Your task to perform on an android device: turn on improve location accuracy Image 0: 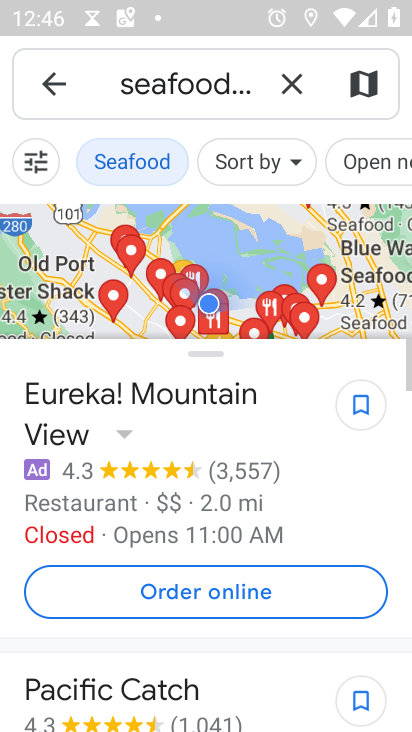
Step 0: press home button
Your task to perform on an android device: turn on improve location accuracy Image 1: 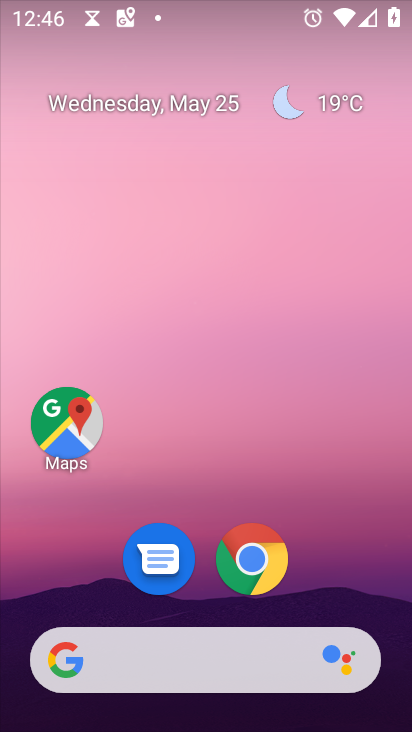
Step 1: drag from (388, 589) to (407, 120)
Your task to perform on an android device: turn on improve location accuracy Image 2: 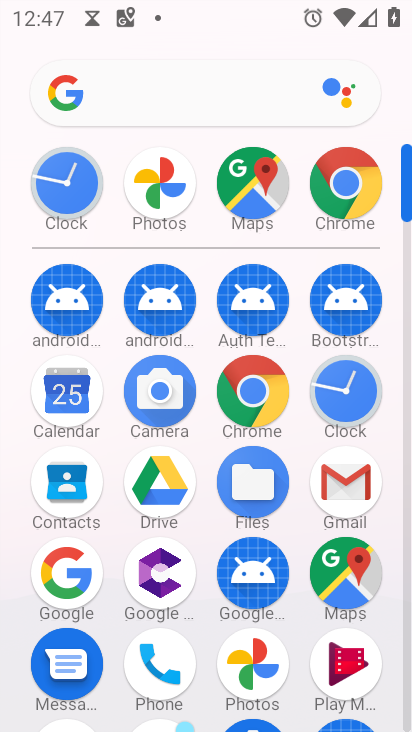
Step 2: drag from (398, 564) to (395, 291)
Your task to perform on an android device: turn on improve location accuracy Image 3: 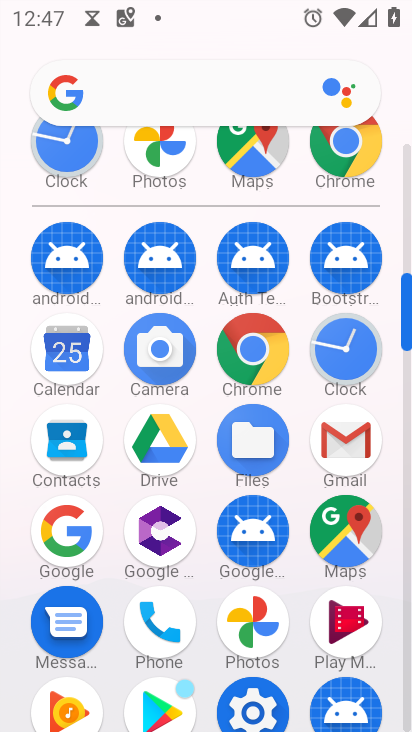
Step 3: drag from (390, 649) to (397, 151)
Your task to perform on an android device: turn on improve location accuracy Image 4: 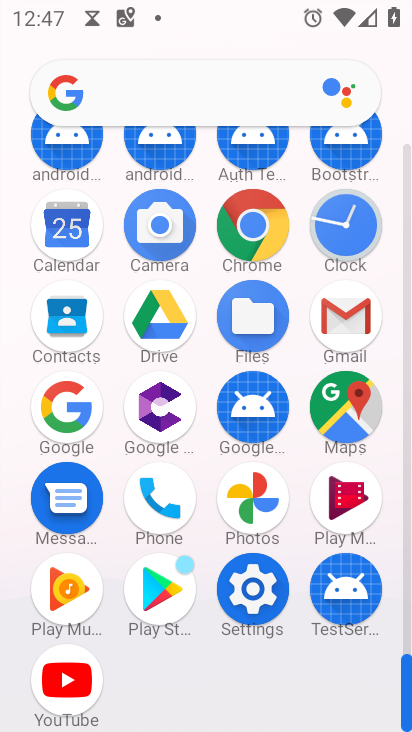
Step 4: click (260, 593)
Your task to perform on an android device: turn on improve location accuracy Image 5: 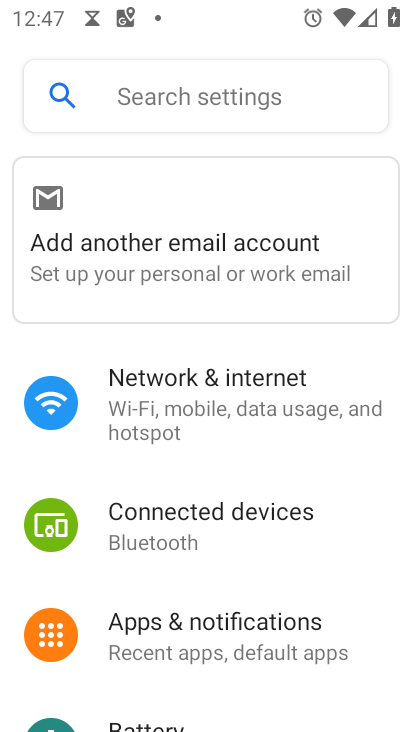
Step 5: drag from (265, 553) to (307, 112)
Your task to perform on an android device: turn on improve location accuracy Image 6: 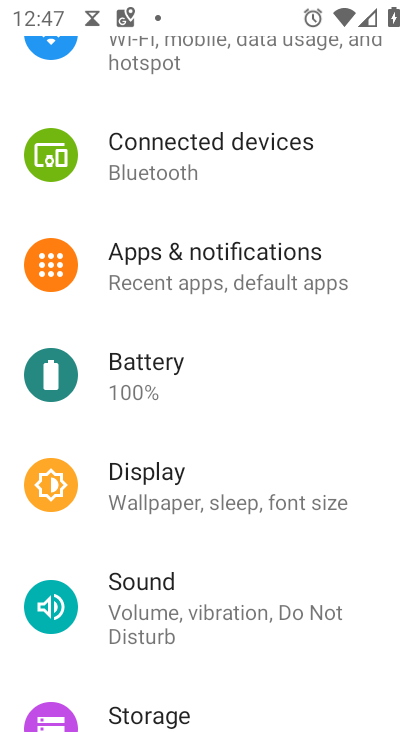
Step 6: drag from (179, 626) to (152, 164)
Your task to perform on an android device: turn on improve location accuracy Image 7: 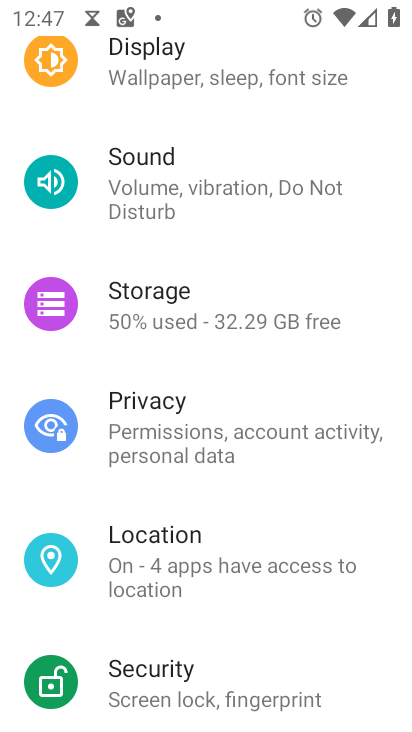
Step 7: click (149, 549)
Your task to perform on an android device: turn on improve location accuracy Image 8: 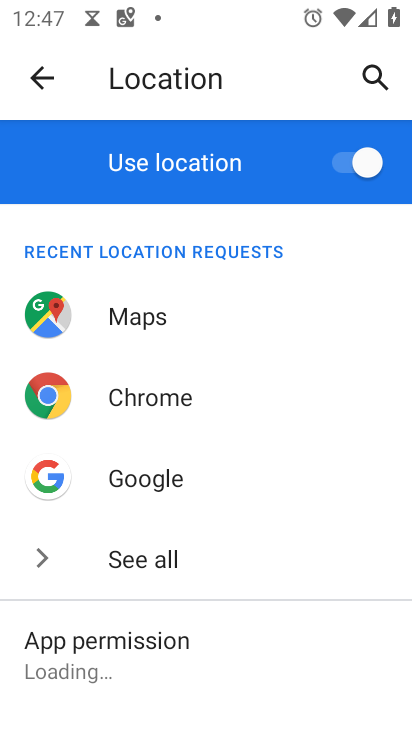
Step 8: drag from (188, 613) to (163, 29)
Your task to perform on an android device: turn on improve location accuracy Image 9: 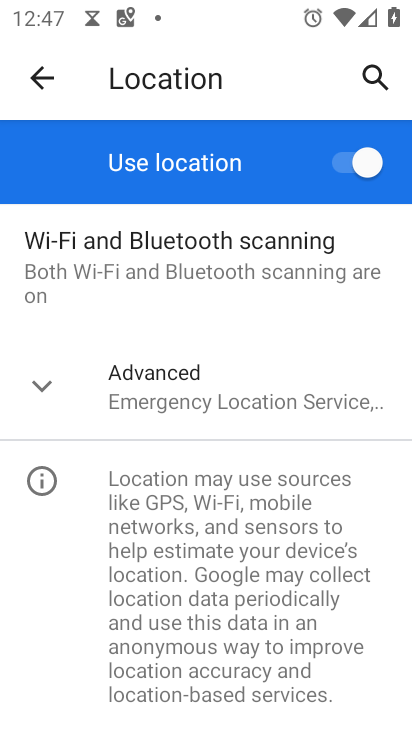
Step 9: click (209, 384)
Your task to perform on an android device: turn on improve location accuracy Image 10: 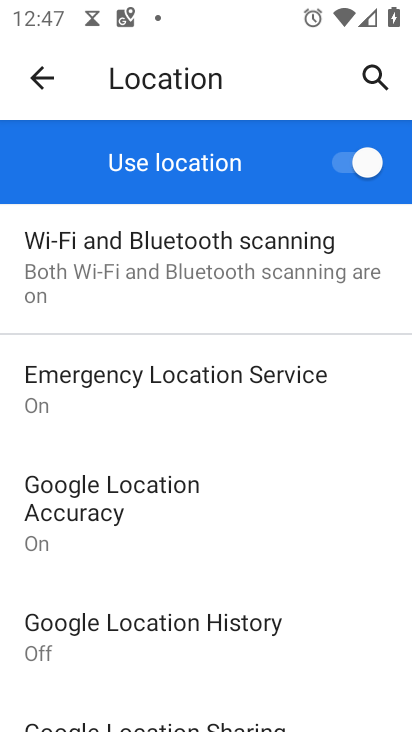
Step 10: drag from (189, 629) to (208, 186)
Your task to perform on an android device: turn on improve location accuracy Image 11: 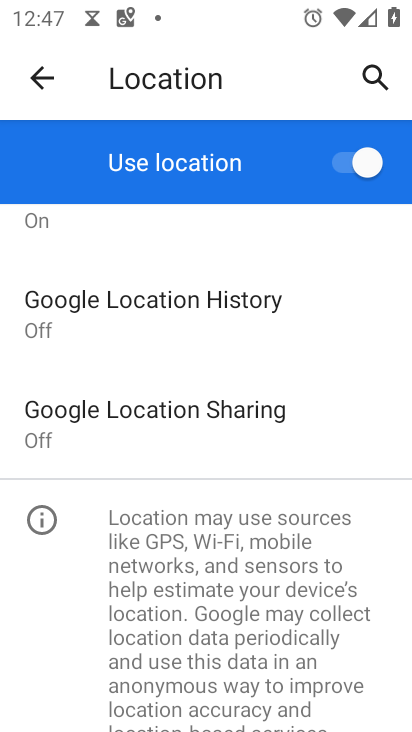
Step 11: drag from (172, 316) to (215, 654)
Your task to perform on an android device: turn on improve location accuracy Image 12: 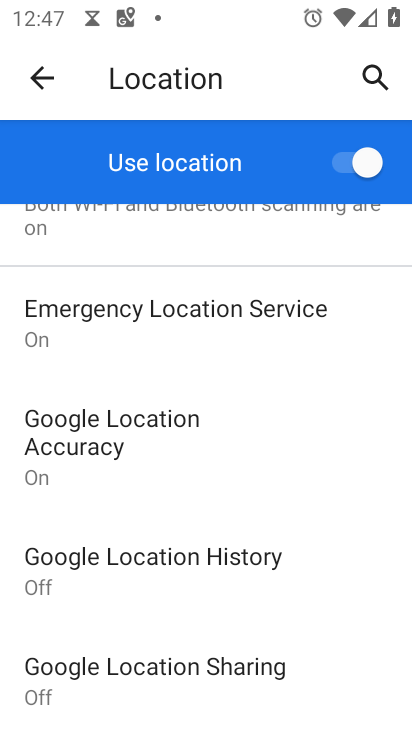
Step 12: drag from (200, 639) to (211, 270)
Your task to perform on an android device: turn on improve location accuracy Image 13: 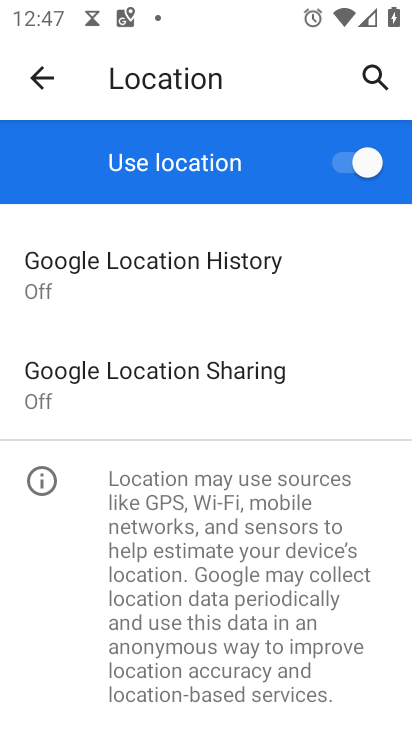
Step 13: drag from (222, 295) to (203, 597)
Your task to perform on an android device: turn on improve location accuracy Image 14: 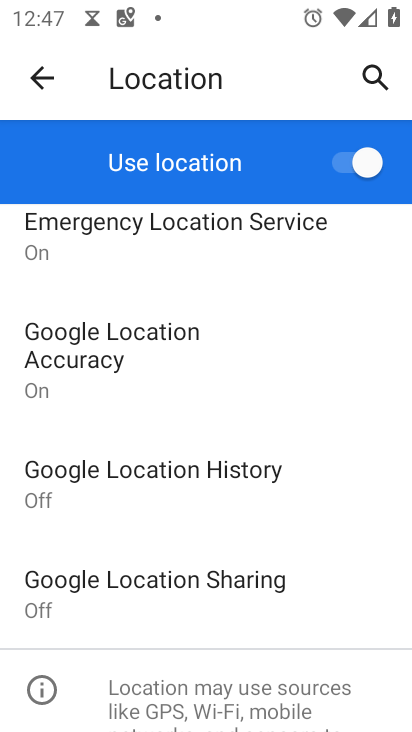
Step 14: click (113, 370)
Your task to perform on an android device: turn on improve location accuracy Image 15: 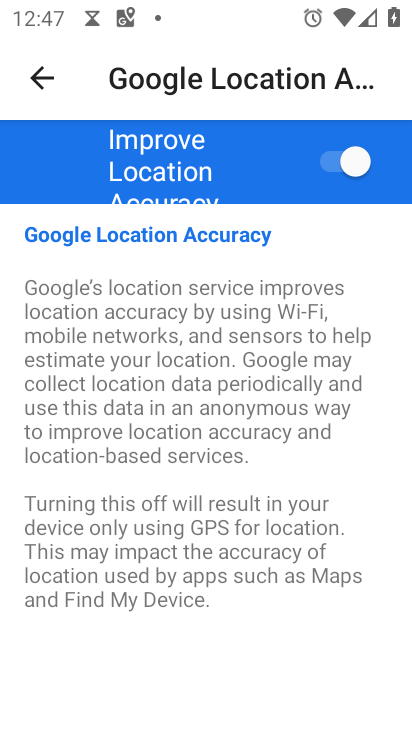
Step 15: task complete